Your task to perform on an android device: open wifi settings Image 0: 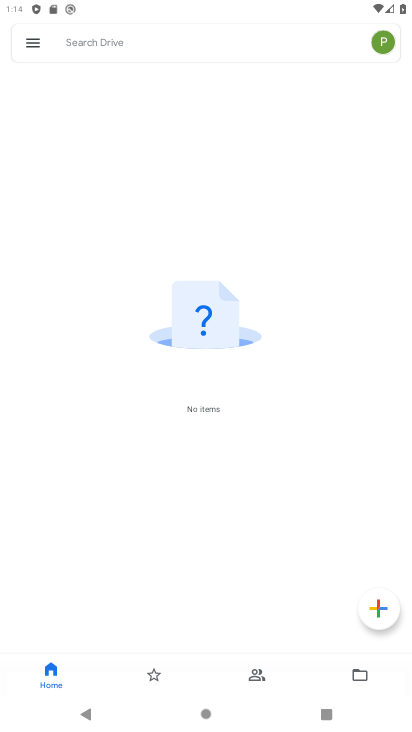
Step 0: press home button
Your task to perform on an android device: open wifi settings Image 1: 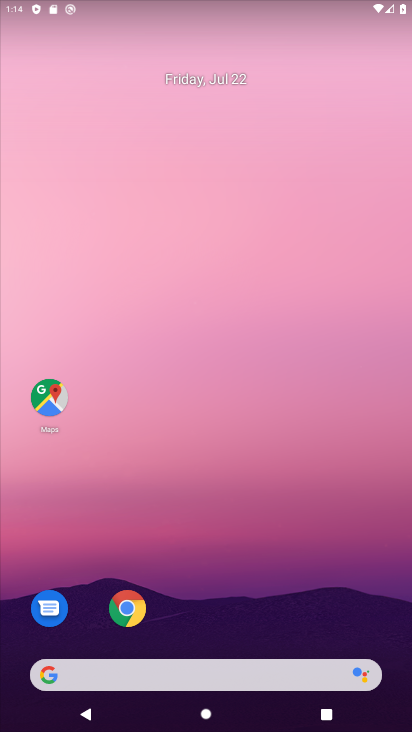
Step 1: drag from (394, 698) to (369, 102)
Your task to perform on an android device: open wifi settings Image 2: 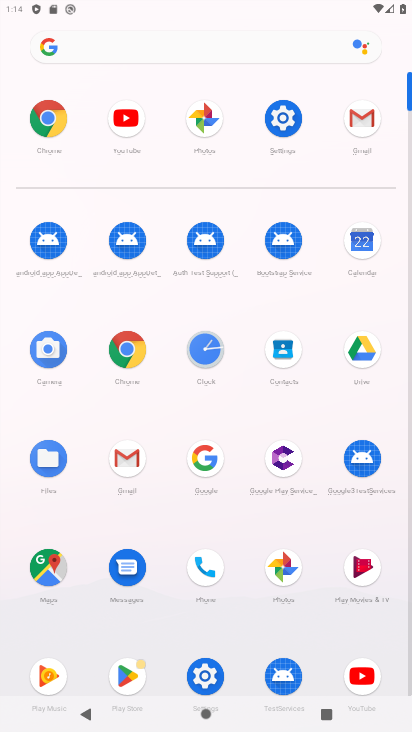
Step 2: click (290, 102)
Your task to perform on an android device: open wifi settings Image 3: 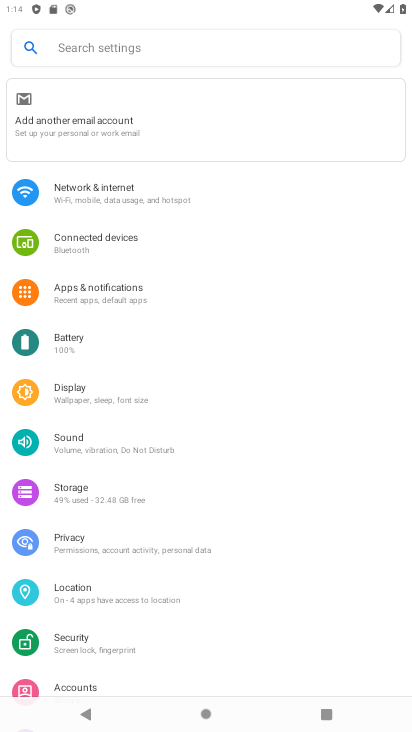
Step 3: click (82, 183)
Your task to perform on an android device: open wifi settings Image 4: 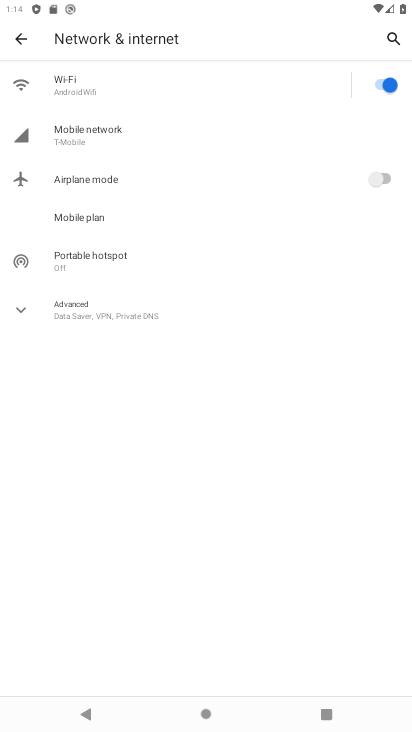
Step 4: click (185, 92)
Your task to perform on an android device: open wifi settings Image 5: 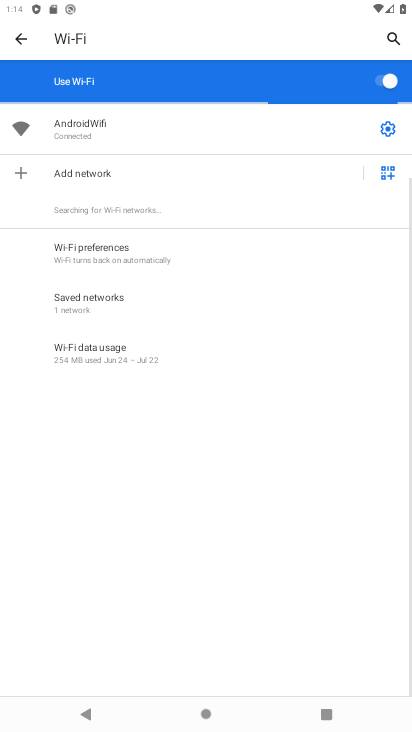
Step 5: click (380, 128)
Your task to perform on an android device: open wifi settings Image 6: 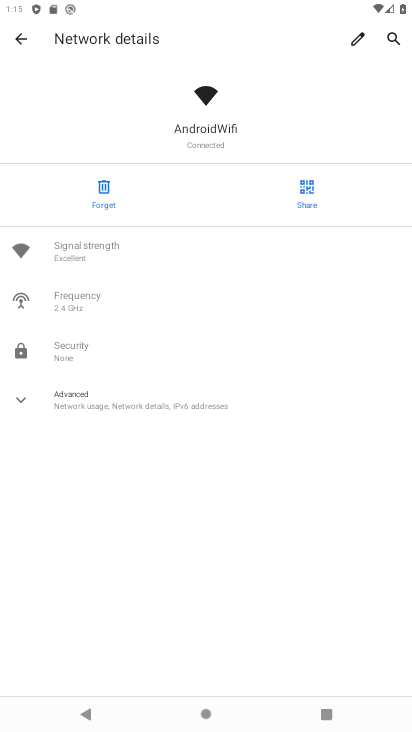
Step 6: task complete